Your task to perform on an android device: open app "Google News" Image 0: 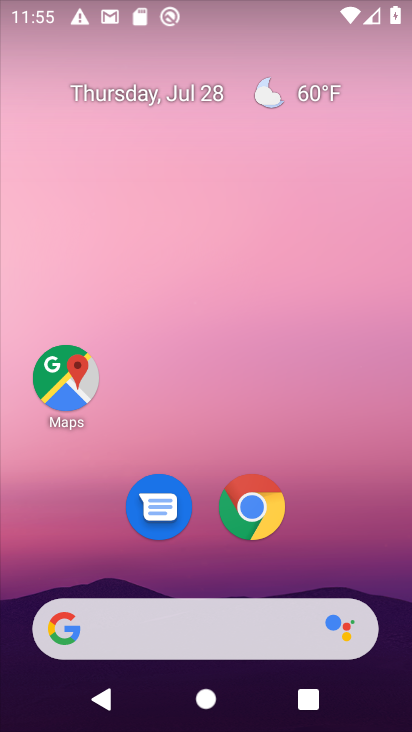
Step 0: drag from (176, 584) to (131, 10)
Your task to perform on an android device: open app "Google News" Image 1: 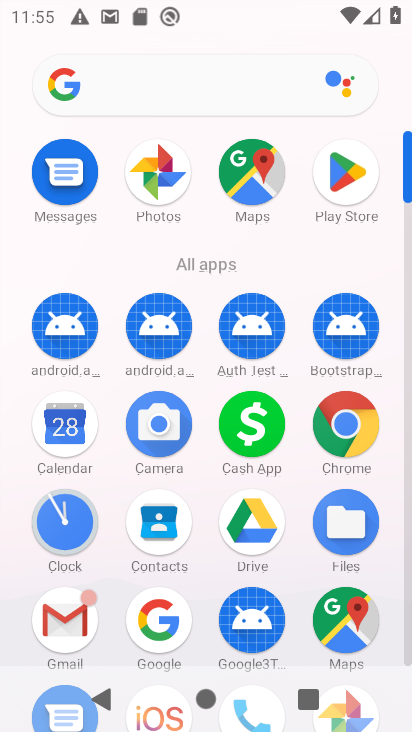
Step 1: click (331, 184)
Your task to perform on an android device: open app "Google News" Image 2: 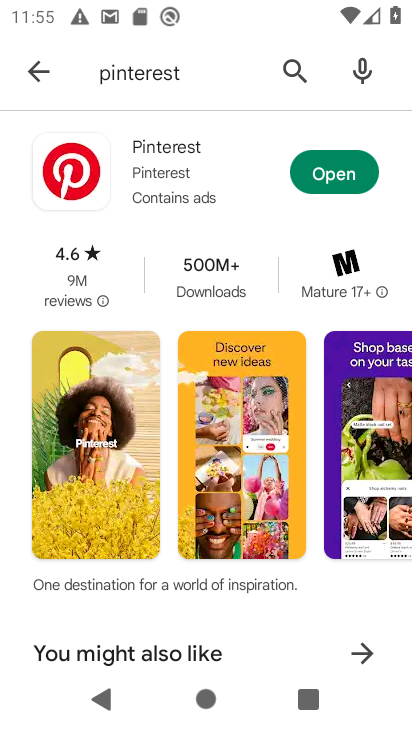
Step 2: click (197, 72)
Your task to perform on an android device: open app "Google News" Image 3: 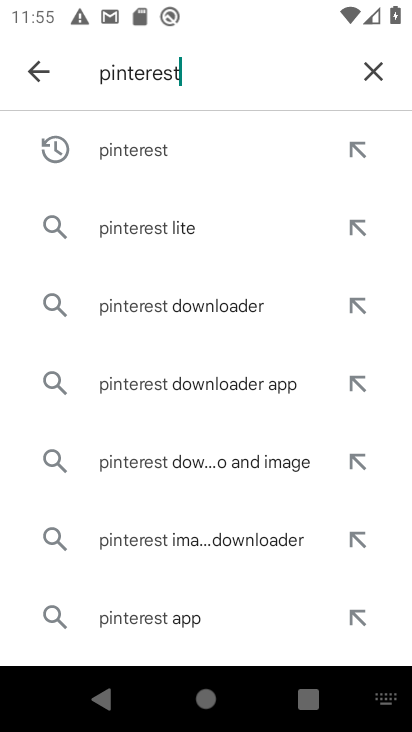
Step 3: click (377, 66)
Your task to perform on an android device: open app "Google News" Image 4: 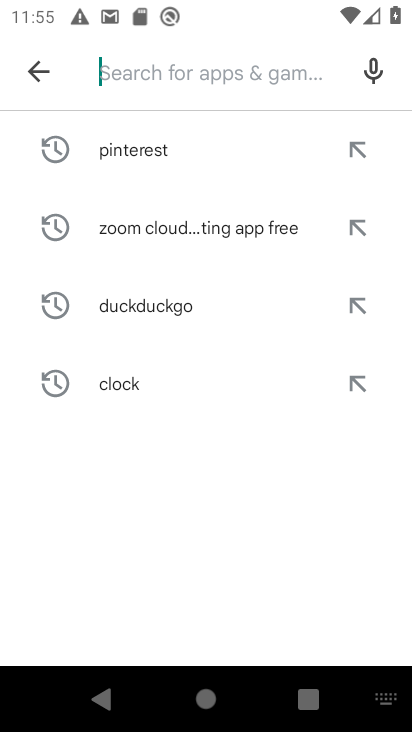
Step 4: type "google news"
Your task to perform on an android device: open app "Google News" Image 5: 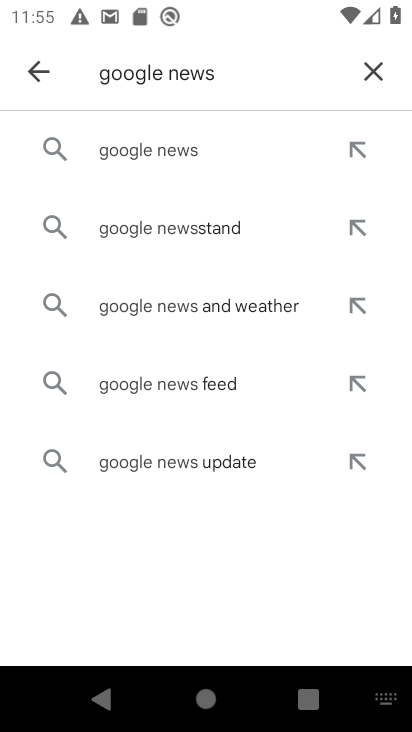
Step 5: click (135, 148)
Your task to perform on an android device: open app "Google News" Image 6: 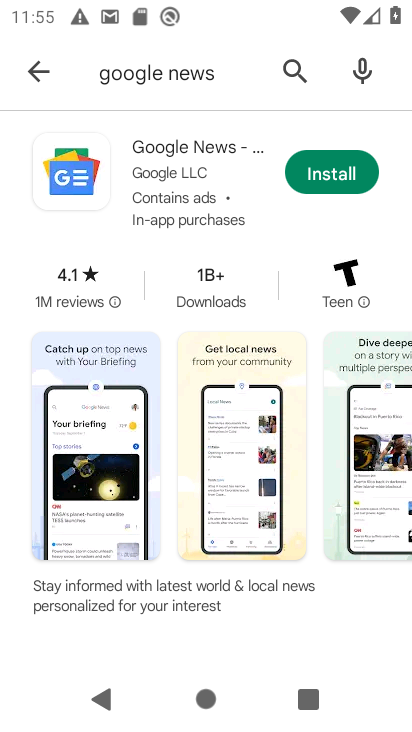
Step 6: task complete